Your task to perform on an android device: Open Reddit.com Image 0: 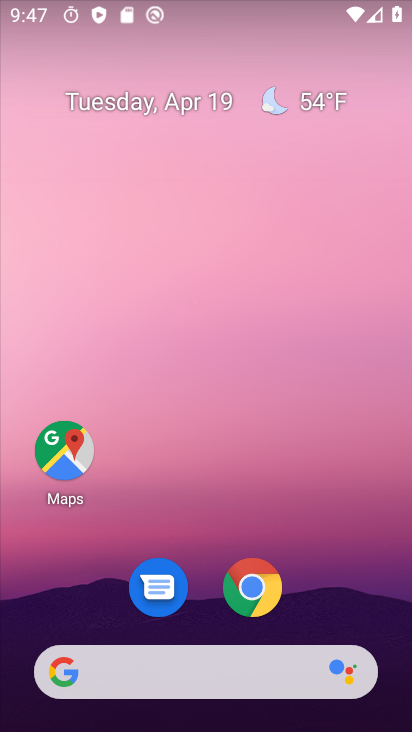
Step 0: drag from (353, 532) to (177, 0)
Your task to perform on an android device: Open Reddit.com Image 1: 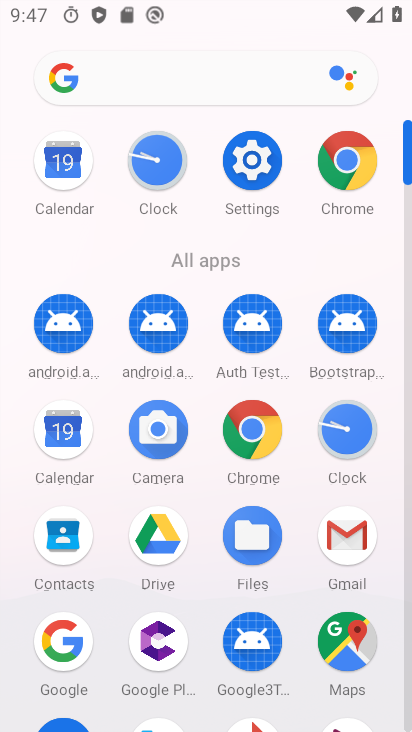
Step 1: click (345, 165)
Your task to perform on an android device: Open Reddit.com Image 2: 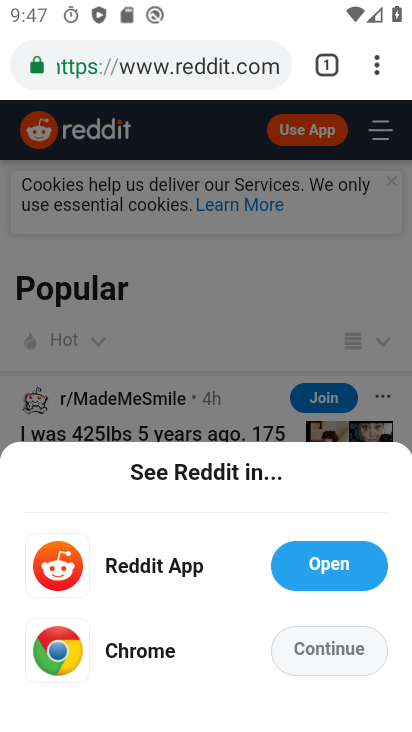
Step 2: task complete